Your task to perform on an android device: Go to ESPN.com Image 0: 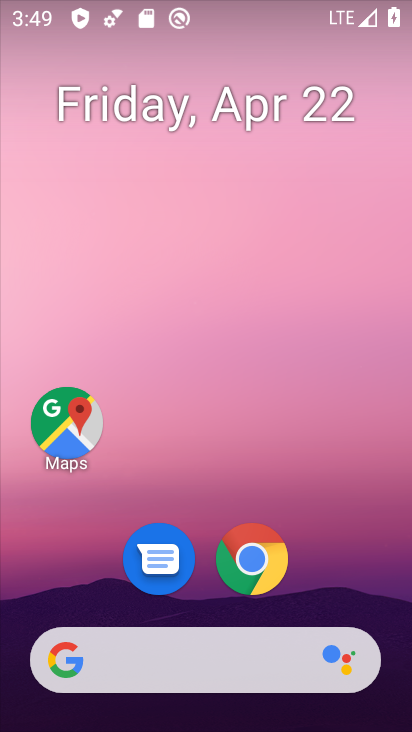
Step 0: click (253, 565)
Your task to perform on an android device: Go to ESPN.com Image 1: 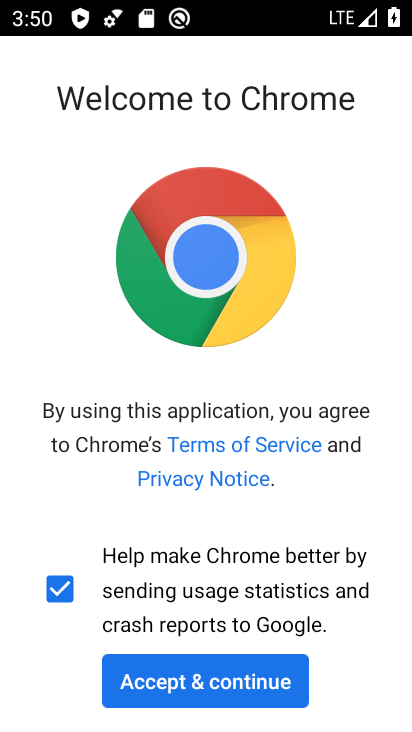
Step 1: click (210, 686)
Your task to perform on an android device: Go to ESPN.com Image 2: 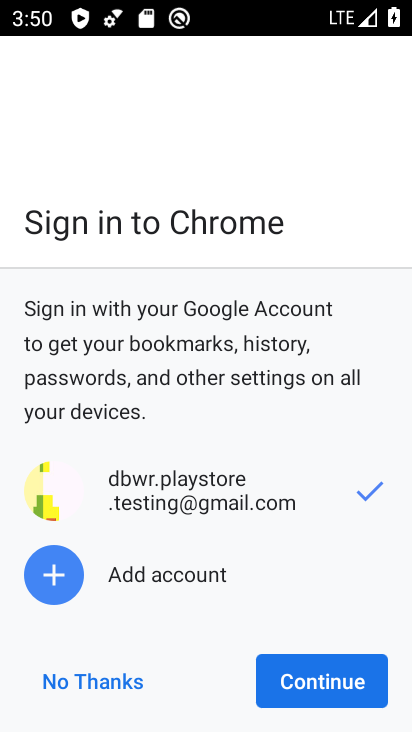
Step 2: click (301, 674)
Your task to perform on an android device: Go to ESPN.com Image 3: 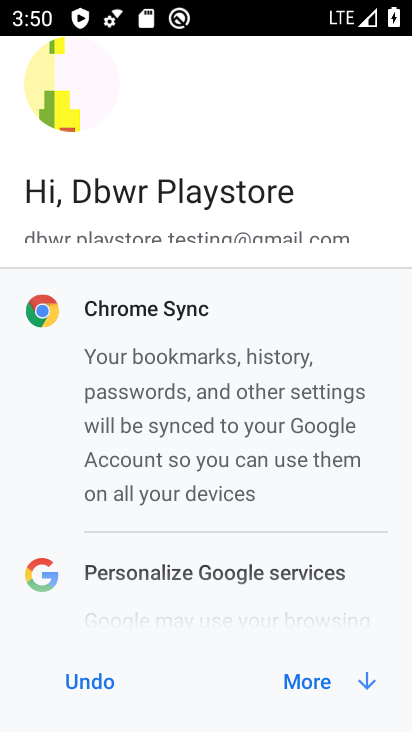
Step 3: click (301, 674)
Your task to perform on an android device: Go to ESPN.com Image 4: 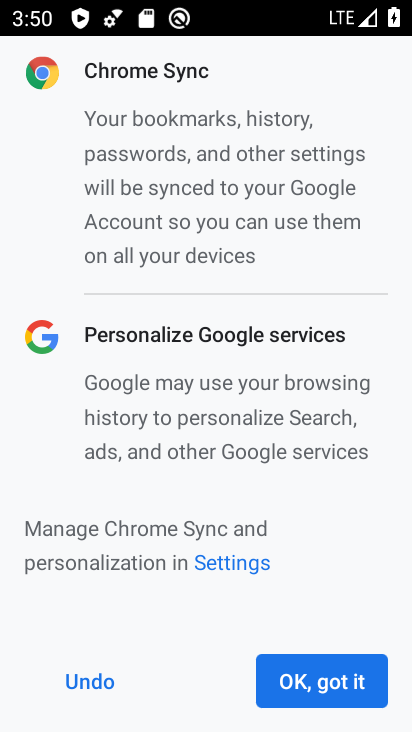
Step 4: click (301, 674)
Your task to perform on an android device: Go to ESPN.com Image 5: 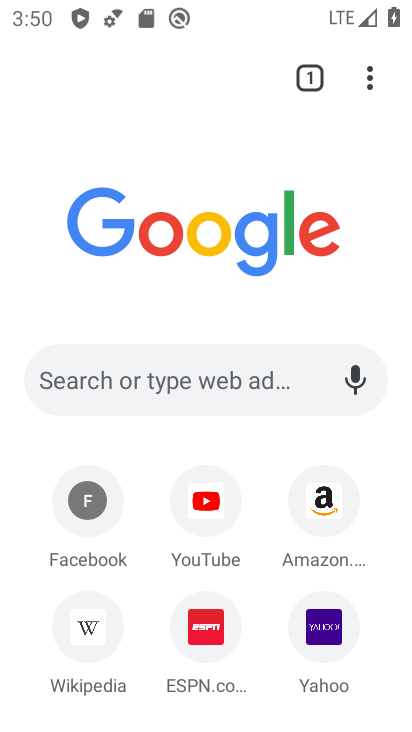
Step 5: click (210, 630)
Your task to perform on an android device: Go to ESPN.com Image 6: 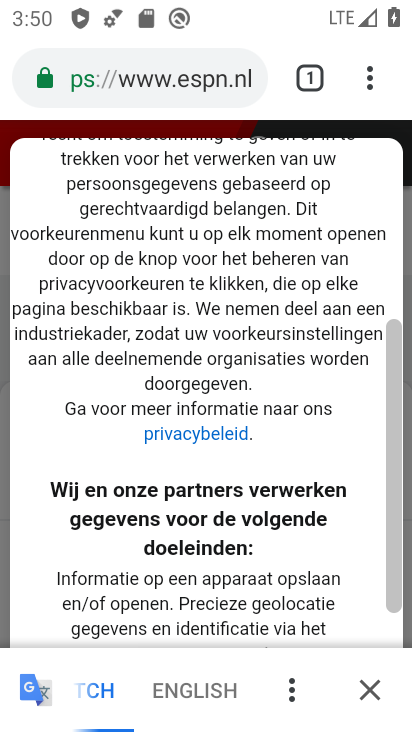
Step 6: task complete